Your task to perform on an android device: Search for vegetarian restaurants on Maps Image 0: 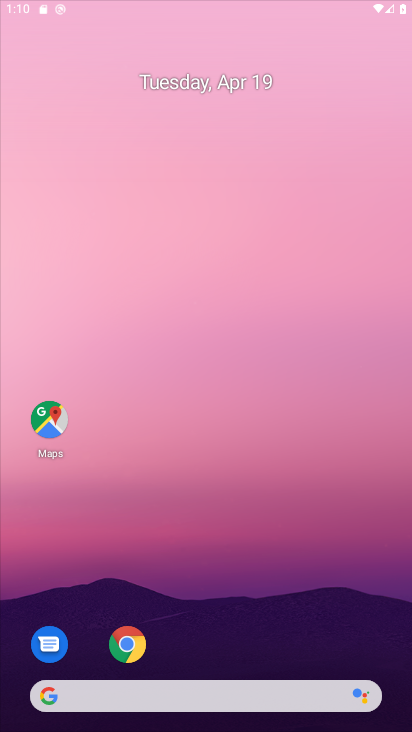
Step 0: drag from (228, 400) to (363, 43)
Your task to perform on an android device: Search for vegetarian restaurants on Maps Image 1: 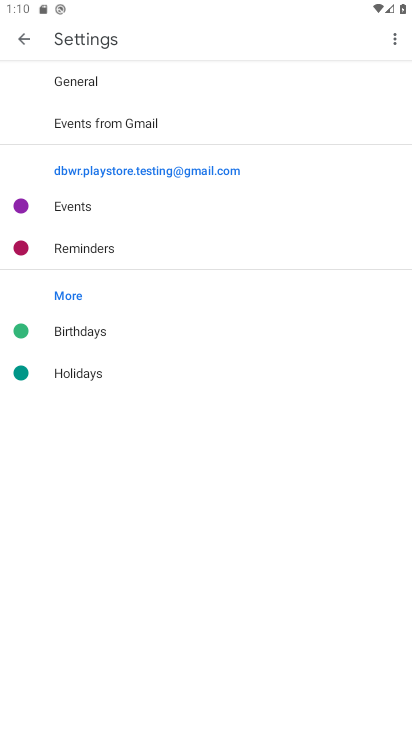
Step 1: press home button
Your task to perform on an android device: Search for vegetarian restaurants on Maps Image 2: 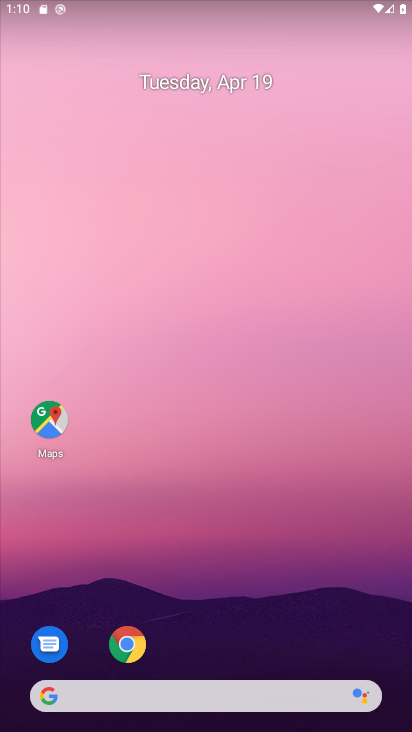
Step 2: drag from (195, 633) to (378, 0)
Your task to perform on an android device: Search for vegetarian restaurants on Maps Image 3: 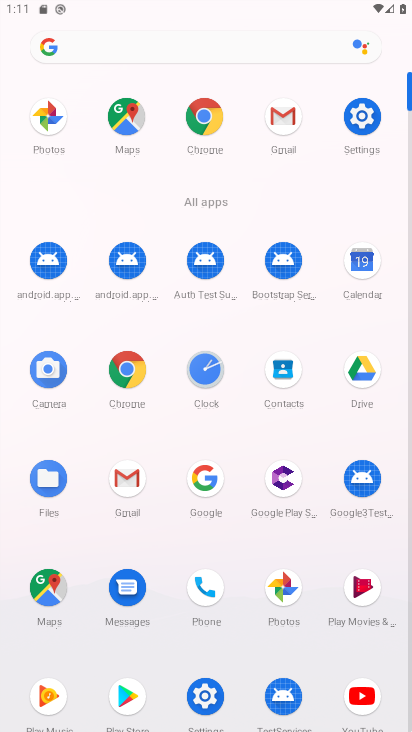
Step 3: click (41, 586)
Your task to perform on an android device: Search for vegetarian restaurants on Maps Image 4: 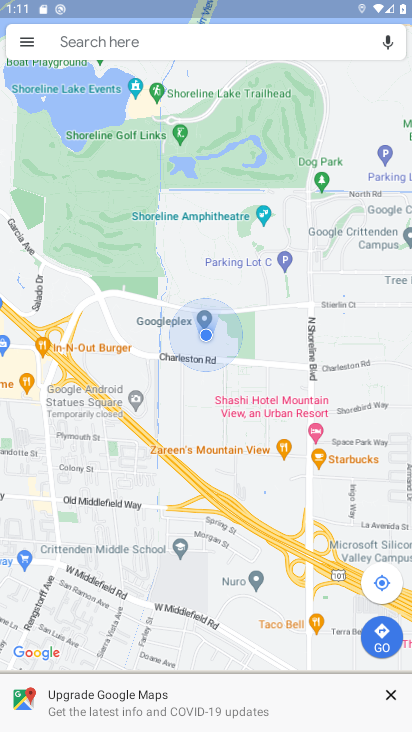
Step 4: click (167, 46)
Your task to perform on an android device: Search for vegetarian restaurants on Maps Image 5: 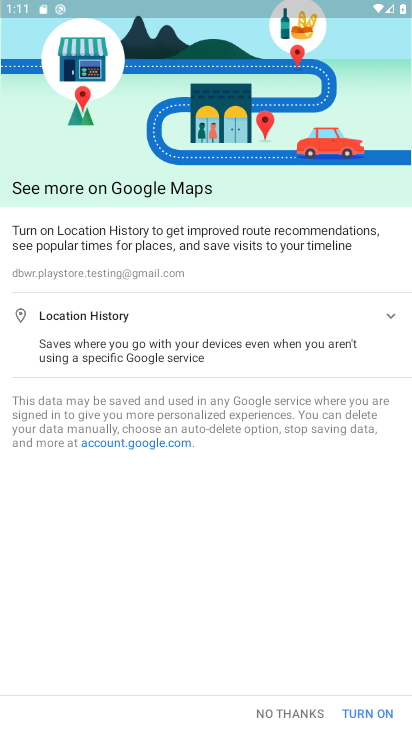
Step 5: click (292, 712)
Your task to perform on an android device: Search for vegetarian restaurants on Maps Image 6: 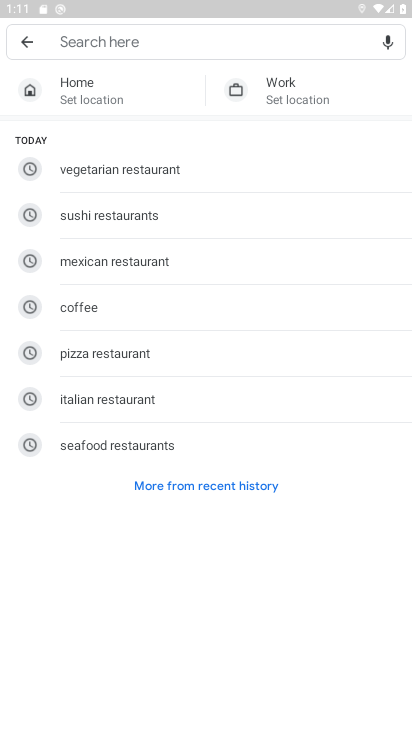
Step 6: click (176, 32)
Your task to perform on an android device: Search for vegetarian restaurants on Maps Image 7: 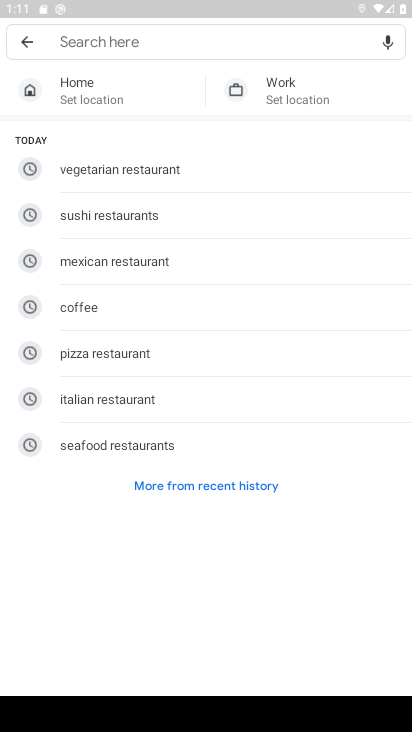
Step 7: type "vegetarian restaurants"
Your task to perform on an android device: Search for vegetarian restaurants on Maps Image 8: 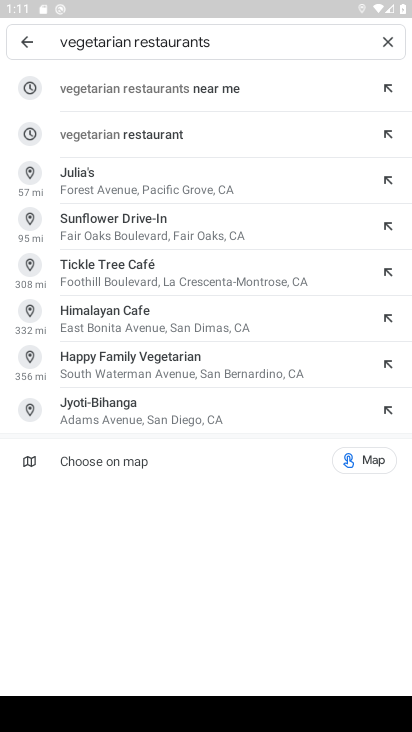
Step 8: click (198, 98)
Your task to perform on an android device: Search for vegetarian restaurants on Maps Image 9: 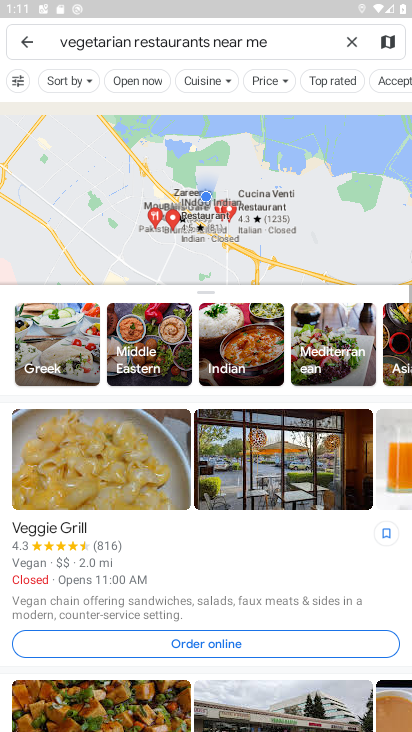
Step 9: task complete